Your task to perform on an android device: toggle priority inbox in the gmail app Image 0: 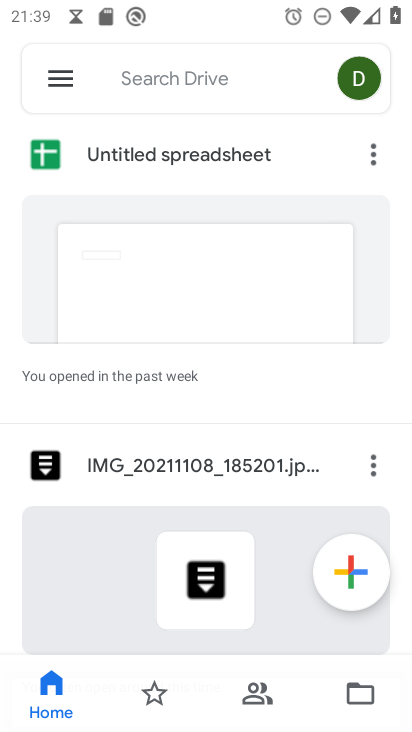
Step 0: press home button
Your task to perform on an android device: toggle priority inbox in the gmail app Image 1: 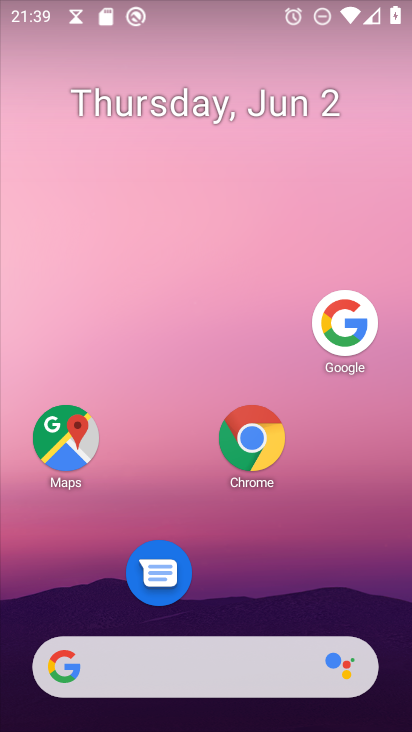
Step 1: drag from (162, 654) to (284, 189)
Your task to perform on an android device: toggle priority inbox in the gmail app Image 2: 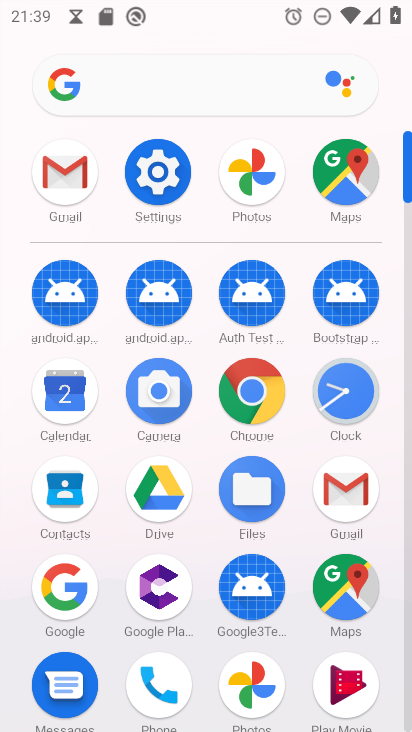
Step 2: click (64, 176)
Your task to perform on an android device: toggle priority inbox in the gmail app Image 3: 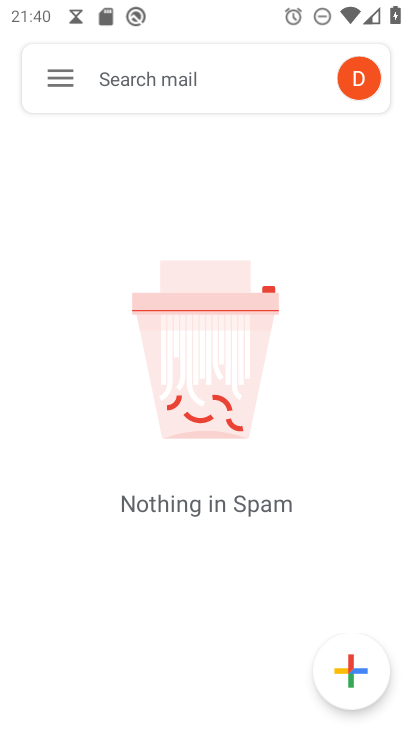
Step 3: click (66, 67)
Your task to perform on an android device: toggle priority inbox in the gmail app Image 4: 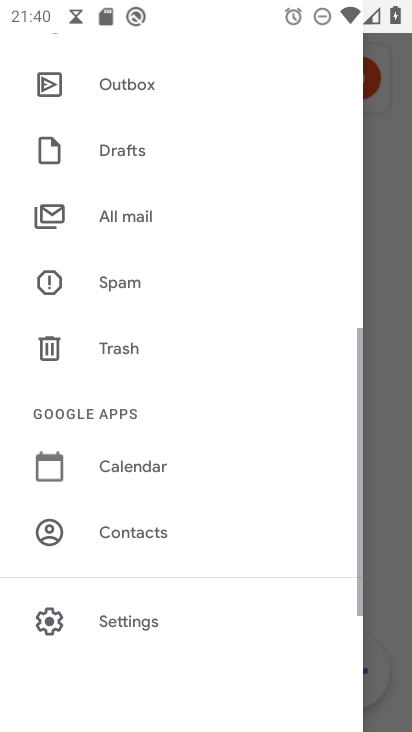
Step 4: click (153, 624)
Your task to perform on an android device: toggle priority inbox in the gmail app Image 5: 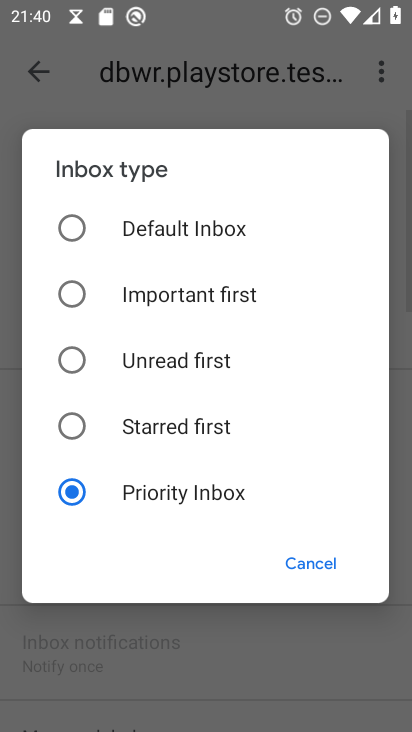
Step 5: click (68, 226)
Your task to perform on an android device: toggle priority inbox in the gmail app Image 6: 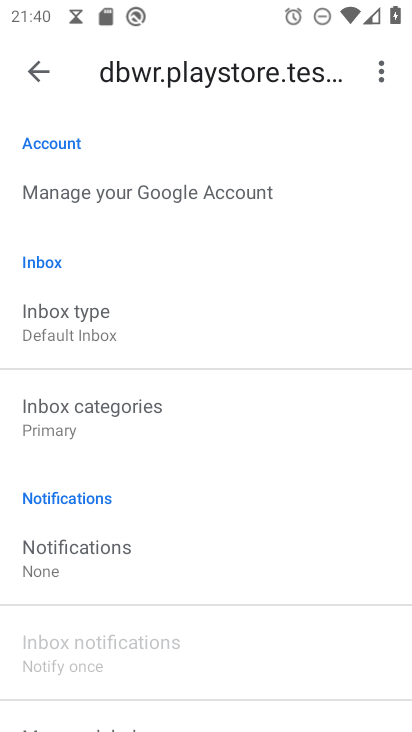
Step 6: task complete